Your task to perform on an android device: Open the web browser Image 0: 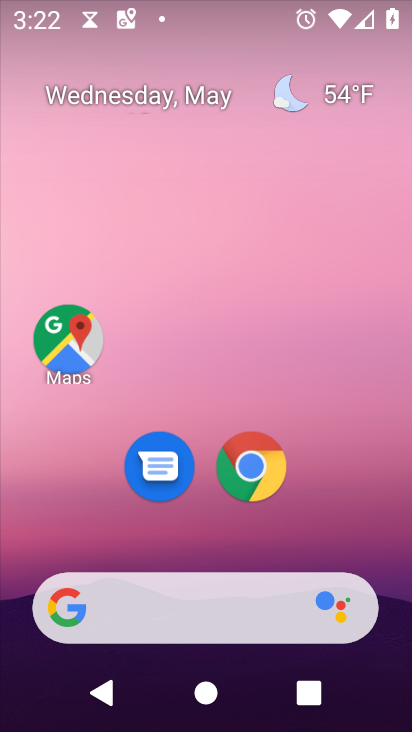
Step 0: click (269, 462)
Your task to perform on an android device: Open the web browser Image 1: 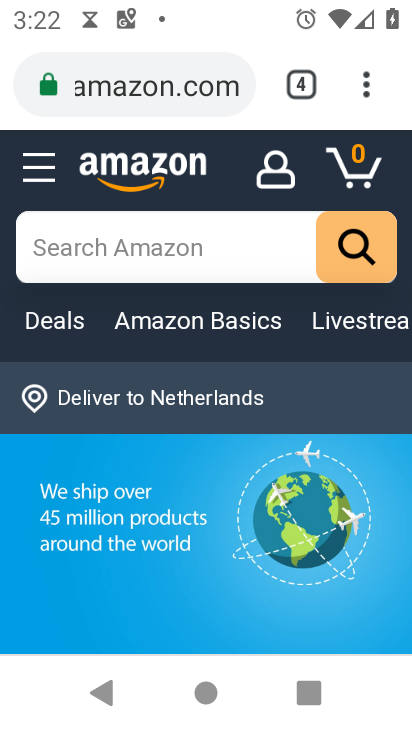
Step 1: task complete